Your task to perform on an android device: Set an alarm for 8pm Image 0: 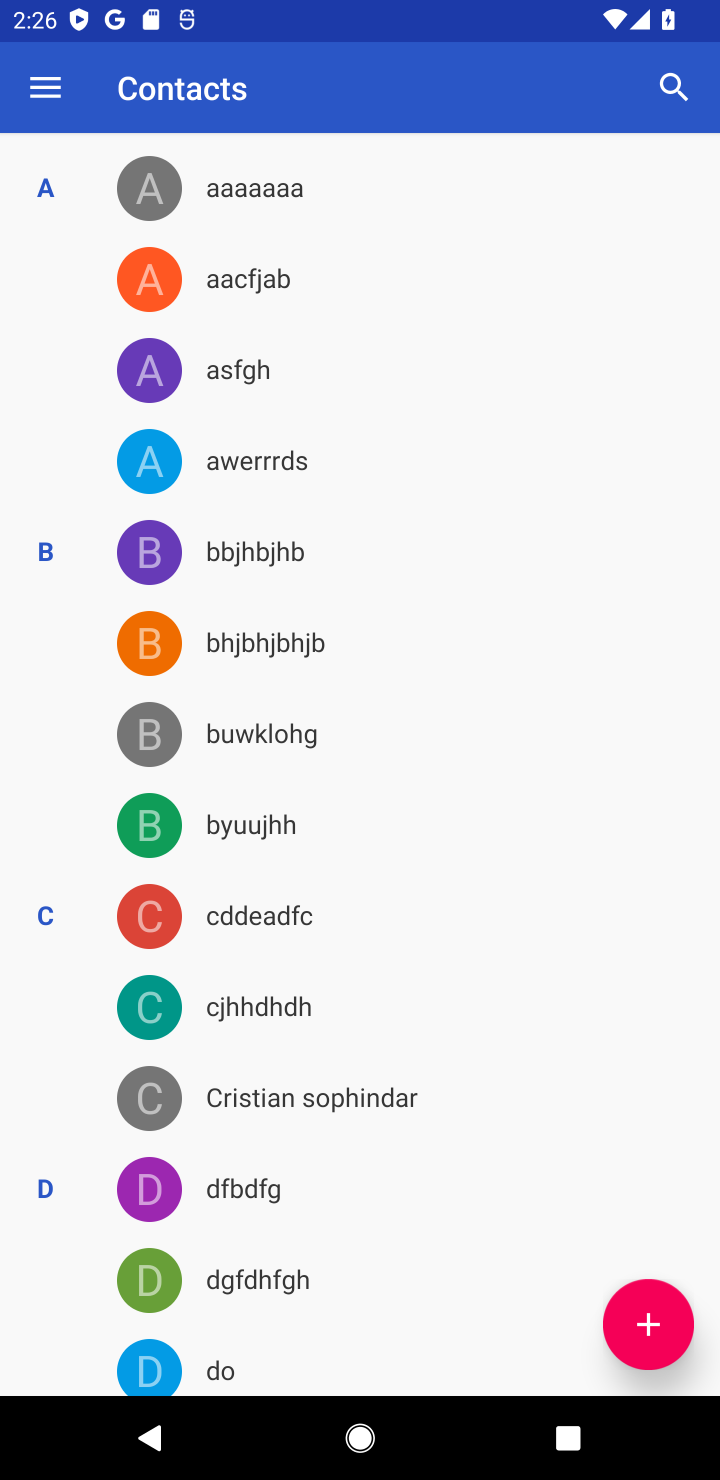
Step 0: press home button
Your task to perform on an android device: Set an alarm for 8pm Image 1: 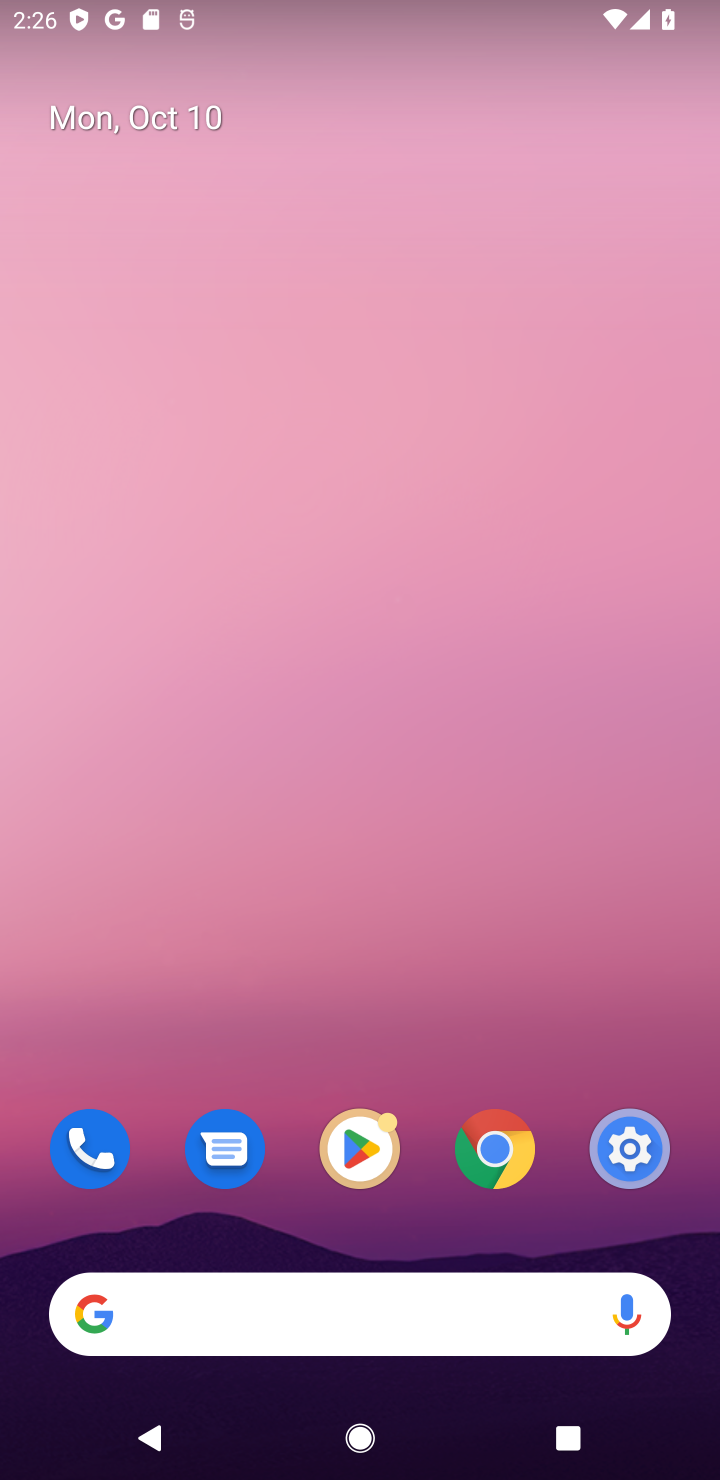
Step 1: drag from (295, 1249) to (245, 32)
Your task to perform on an android device: Set an alarm for 8pm Image 2: 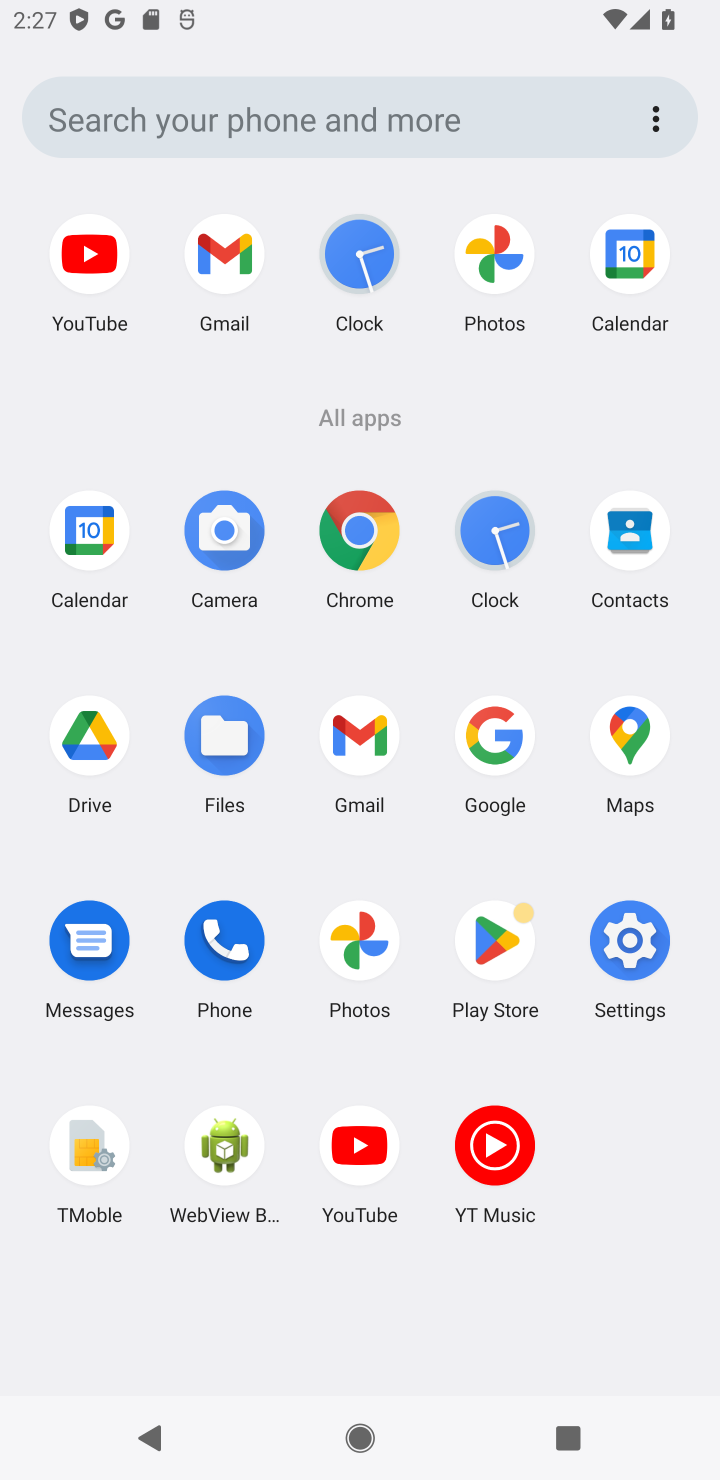
Step 2: click (497, 588)
Your task to perform on an android device: Set an alarm for 8pm Image 3: 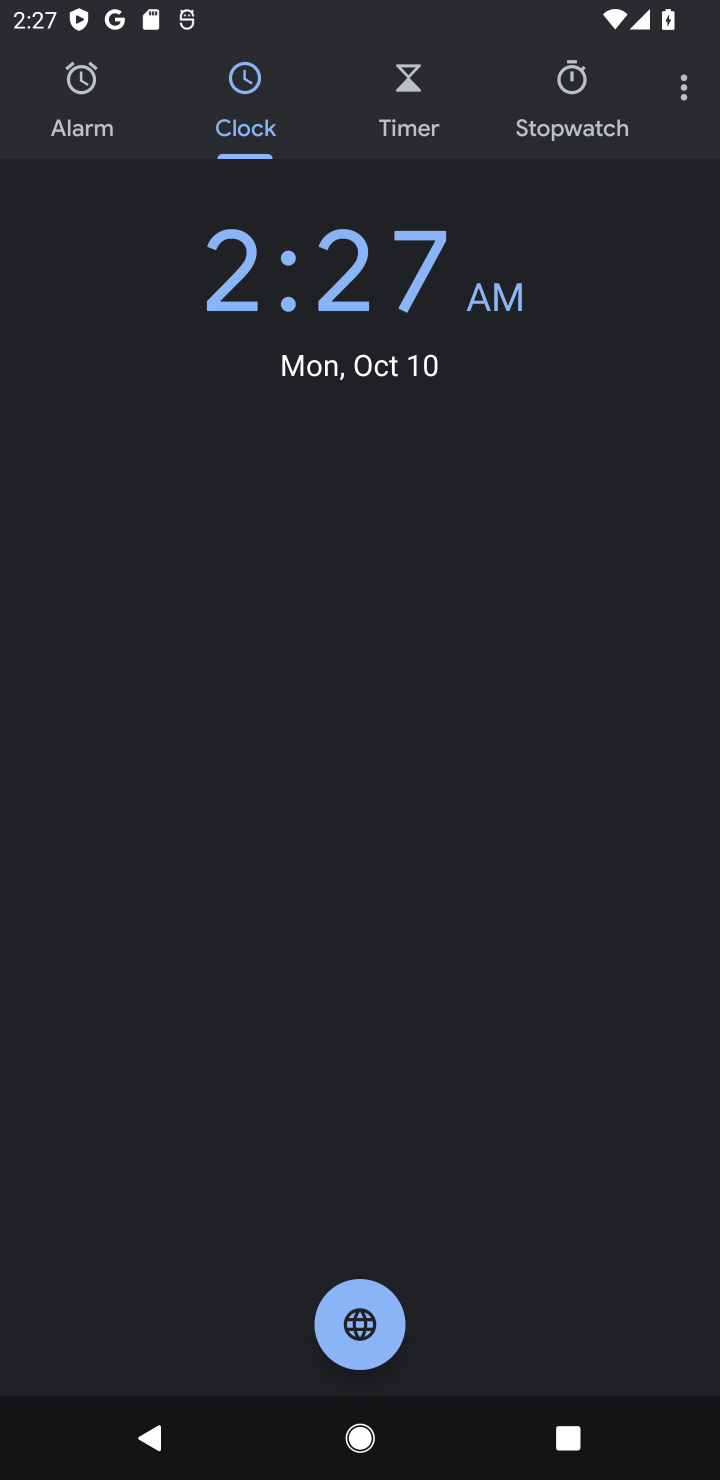
Step 3: click (103, 79)
Your task to perform on an android device: Set an alarm for 8pm Image 4: 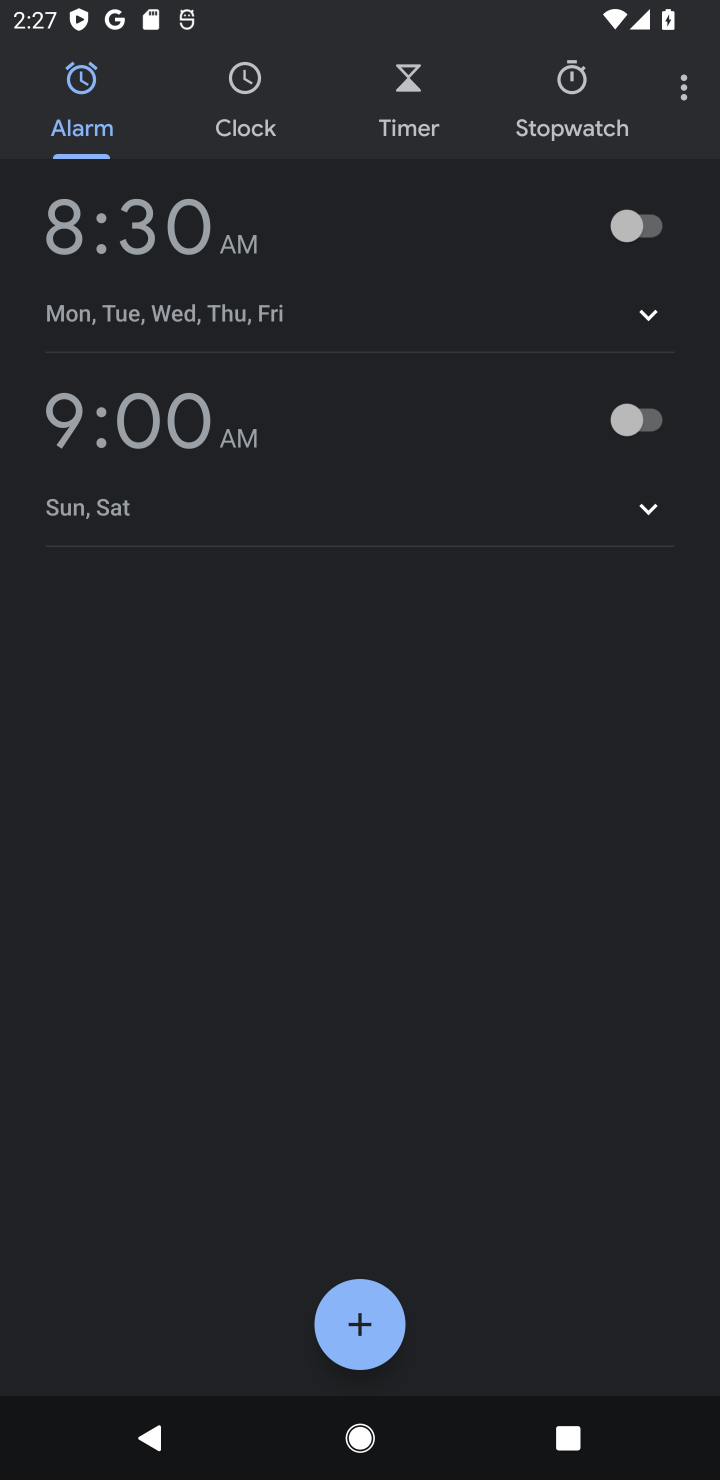
Step 4: click (295, 210)
Your task to perform on an android device: Set an alarm for 8pm Image 5: 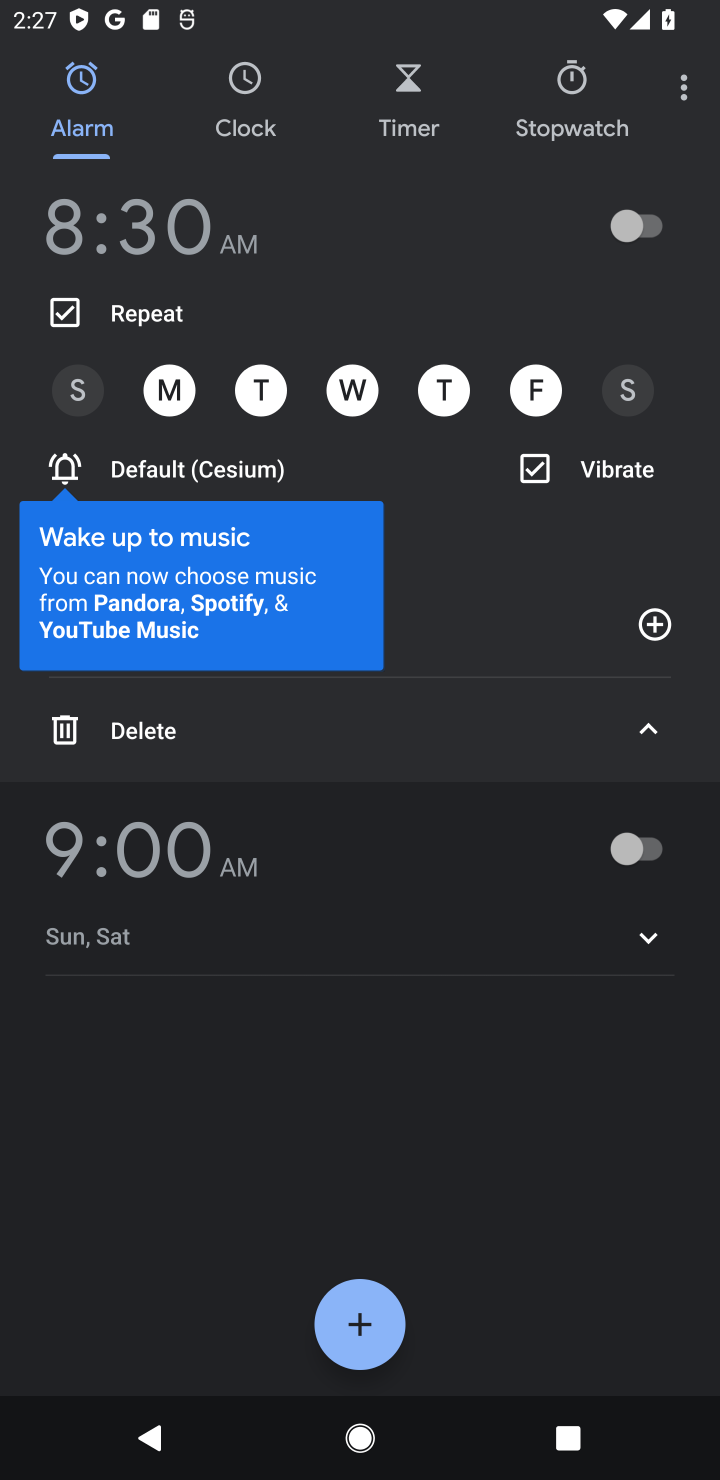
Step 5: click (87, 248)
Your task to perform on an android device: Set an alarm for 8pm Image 6: 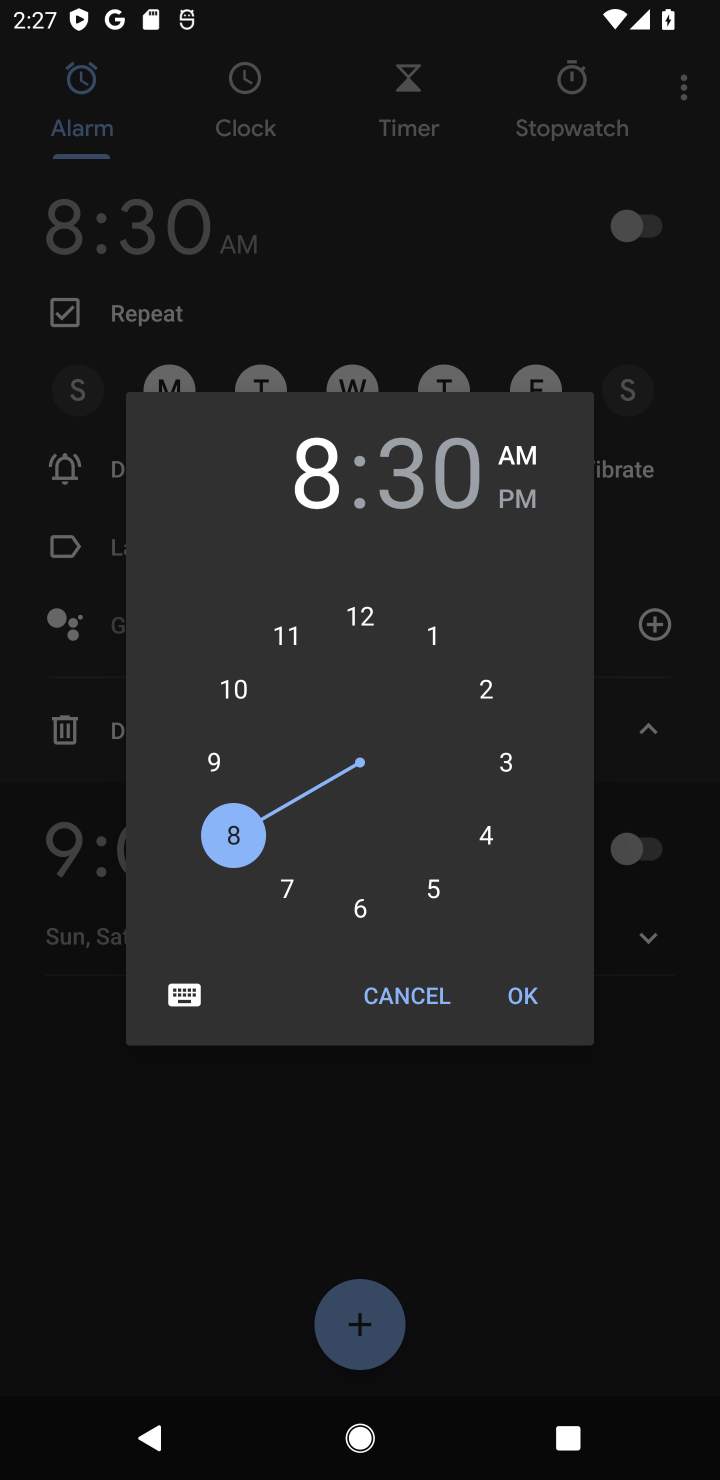
Step 6: click (238, 827)
Your task to perform on an android device: Set an alarm for 8pm Image 7: 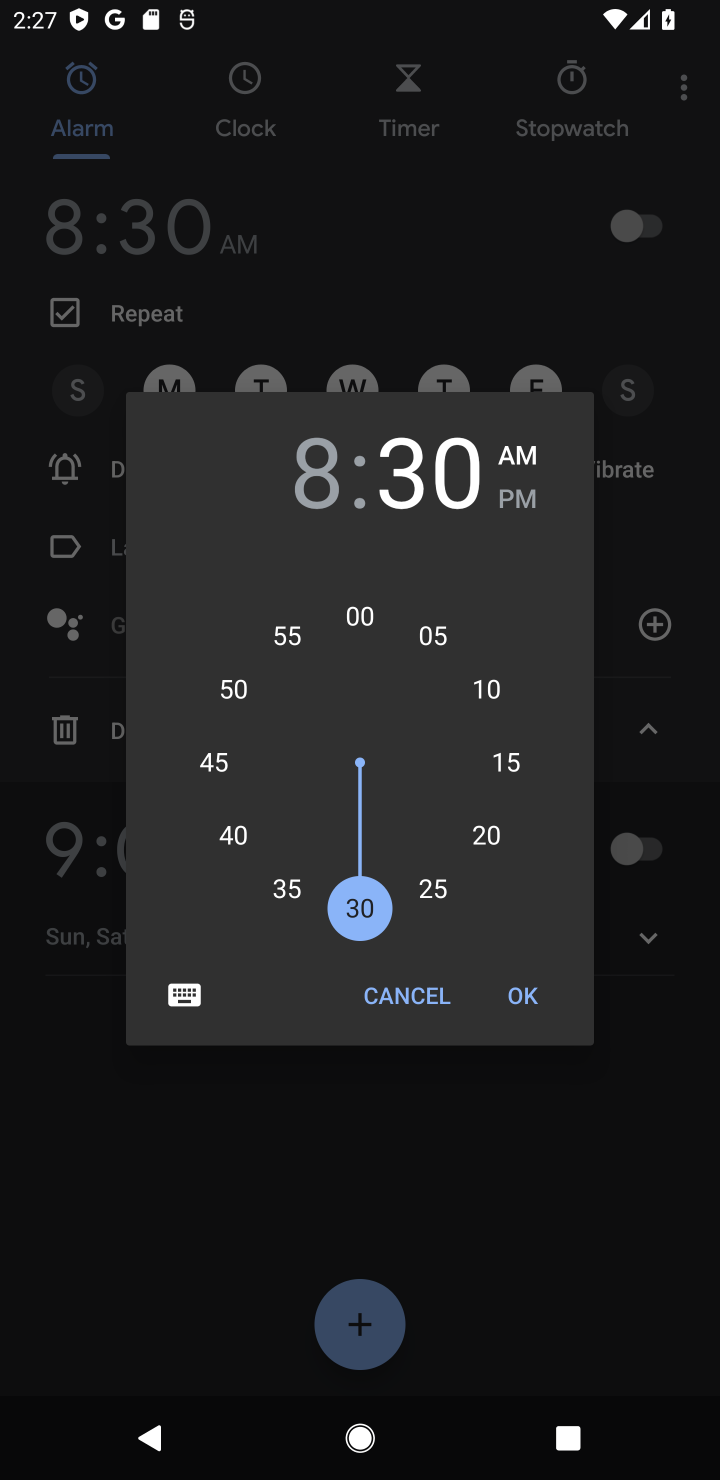
Step 7: click (359, 629)
Your task to perform on an android device: Set an alarm for 8pm Image 8: 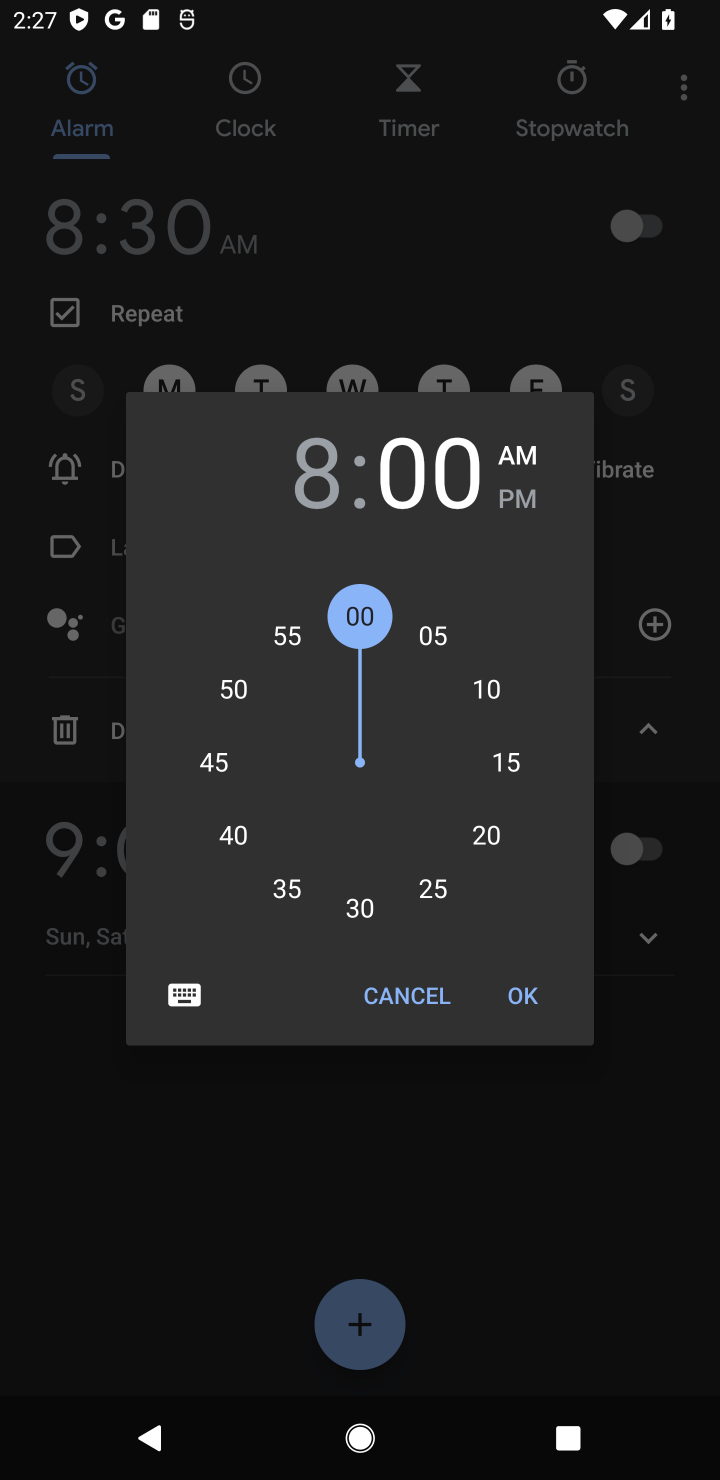
Step 8: click (535, 1016)
Your task to perform on an android device: Set an alarm for 8pm Image 9: 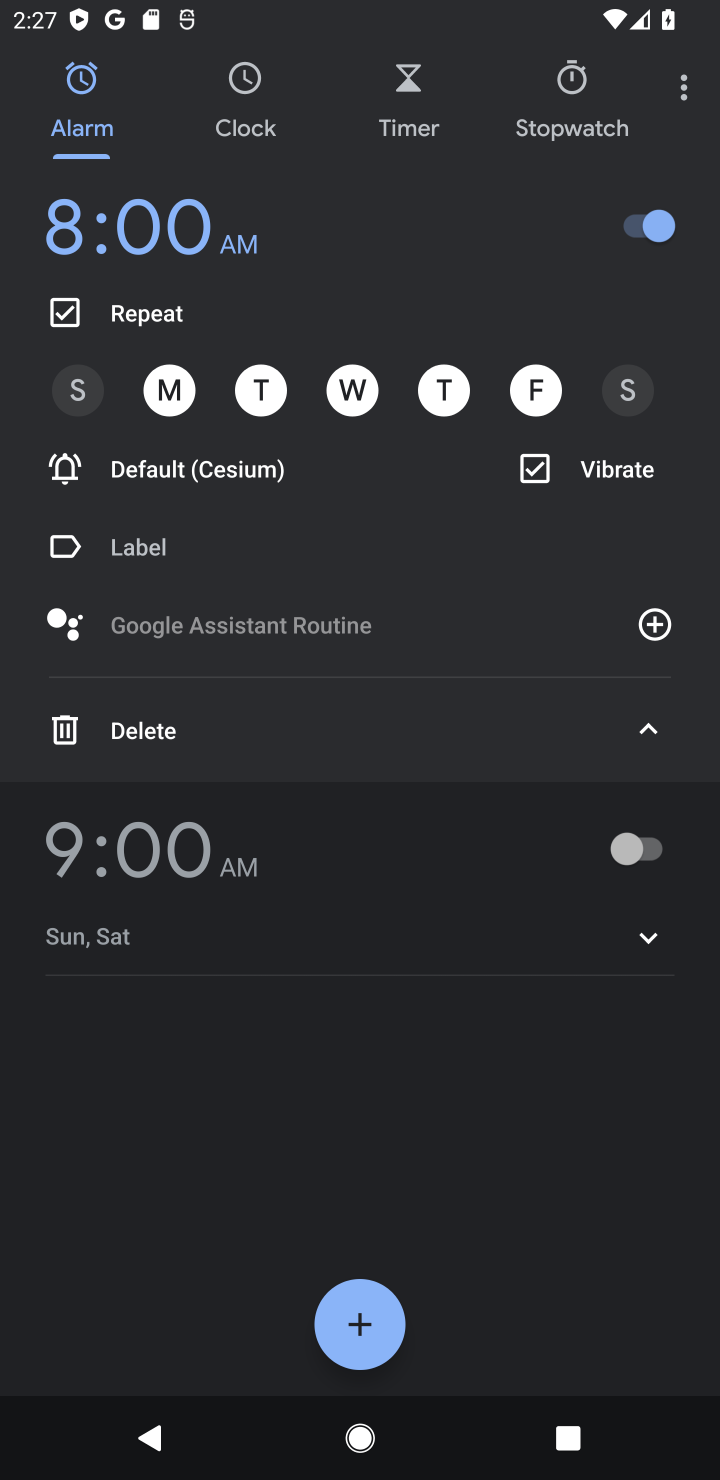
Step 9: task complete